Your task to perform on an android device: allow notifications from all sites in the chrome app Image 0: 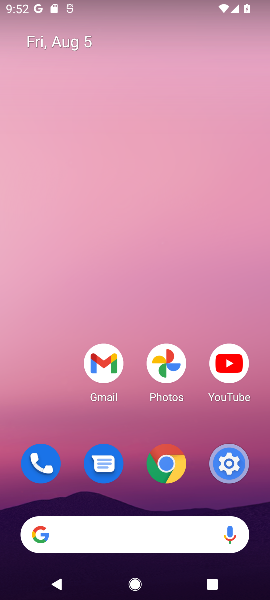
Step 0: drag from (190, 325) to (164, 47)
Your task to perform on an android device: allow notifications from all sites in the chrome app Image 1: 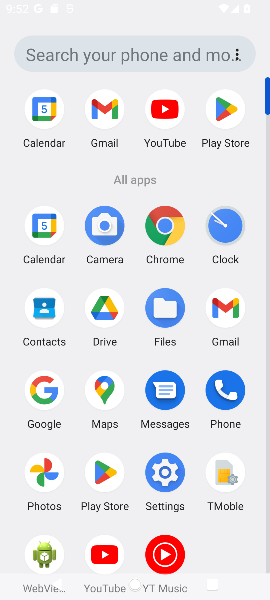
Step 1: drag from (181, 314) to (135, 59)
Your task to perform on an android device: allow notifications from all sites in the chrome app Image 2: 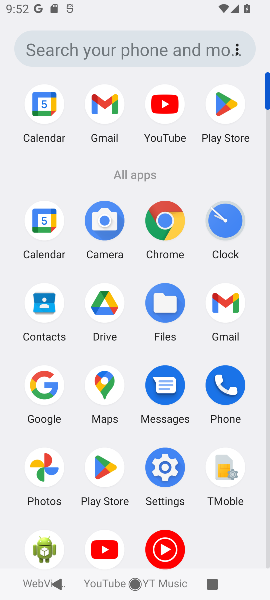
Step 2: click (169, 229)
Your task to perform on an android device: allow notifications from all sites in the chrome app Image 3: 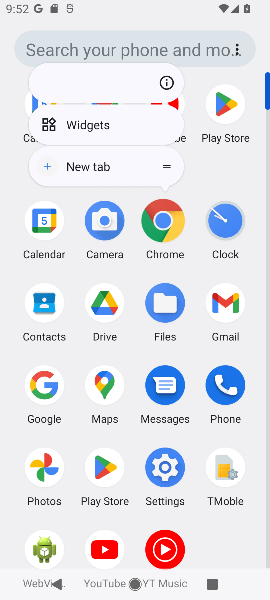
Step 3: click (167, 229)
Your task to perform on an android device: allow notifications from all sites in the chrome app Image 4: 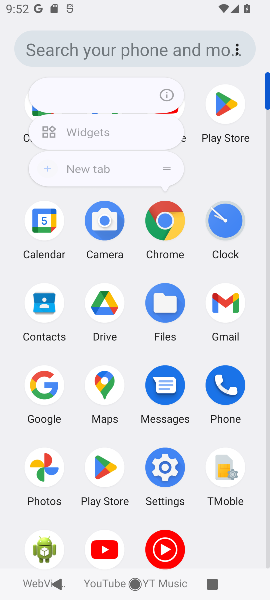
Step 4: click (161, 223)
Your task to perform on an android device: allow notifications from all sites in the chrome app Image 5: 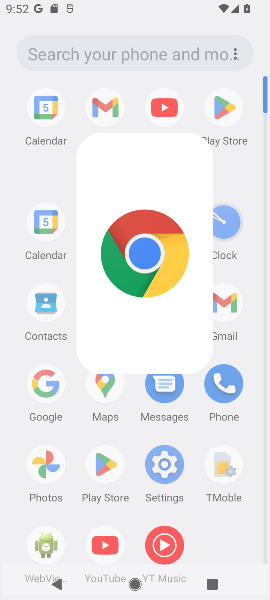
Step 5: click (161, 223)
Your task to perform on an android device: allow notifications from all sites in the chrome app Image 6: 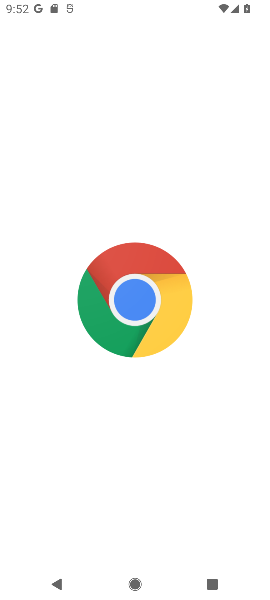
Step 6: click (161, 223)
Your task to perform on an android device: allow notifications from all sites in the chrome app Image 7: 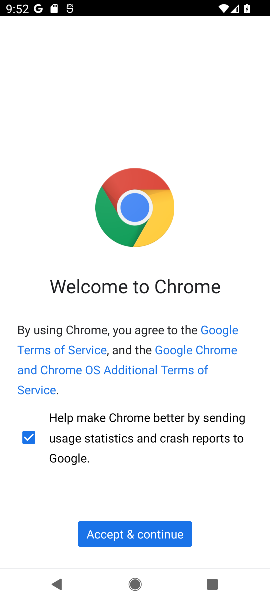
Step 7: click (156, 534)
Your task to perform on an android device: allow notifications from all sites in the chrome app Image 8: 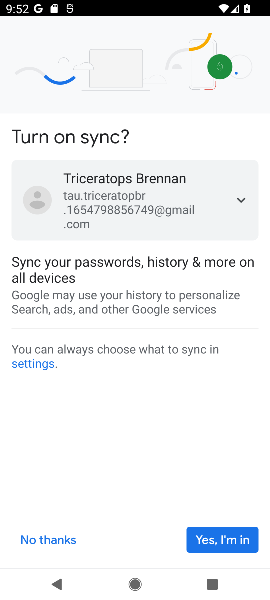
Step 8: click (149, 529)
Your task to perform on an android device: allow notifications from all sites in the chrome app Image 9: 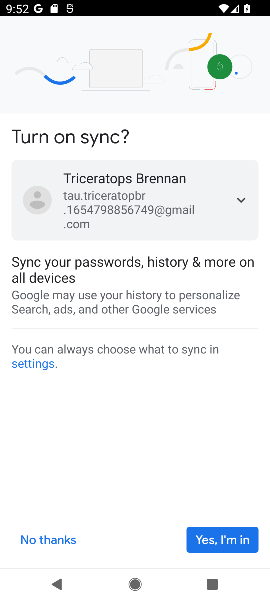
Step 9: click (34, 540)
Your task to perform on an android device: allow notifications from all sites in the chrome app Image 10: 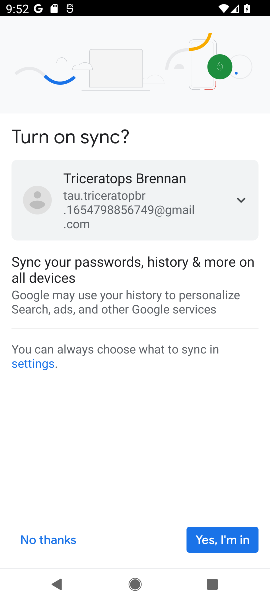
Step 10: click (34, 540)
Your task to perform on an android device: allow notifications from all sites in the chrome app Image 11: 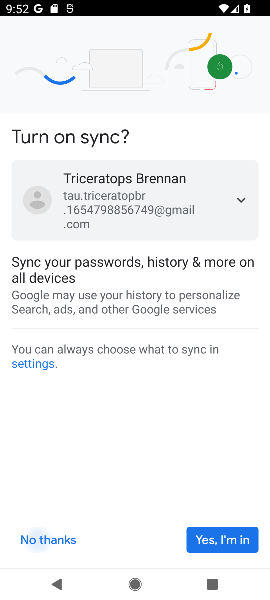
Step 11: click (34, 540)
Your task to perform on an android device: allow notifications from all sites in the chrome app Image 12: 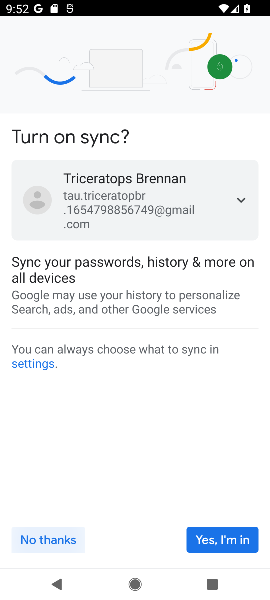
Step 12: click (34, 540)
Your task to perform on an android device: allow notifications from all sites in the chrome app Image 13: 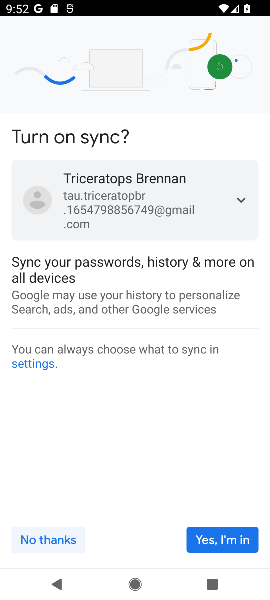
Step 13: click (34, 540)
Your task to perform on an android device: allow notifications from all sites in the chrome app Image 14: 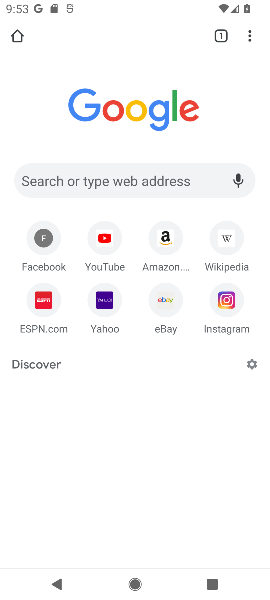
Step 14: click (52, 536)
Your task to perform on an android device: allow notifications from all sites in the chrome app Image 15: 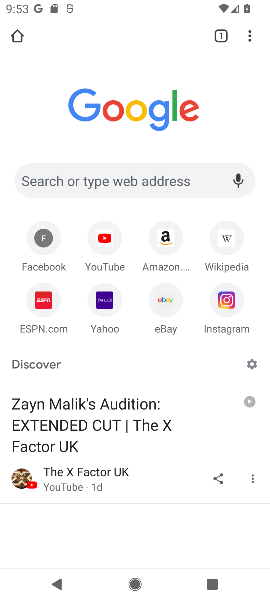
Step 15: click (52, 536)
Your task to perform on an android device: allow notifications from all sites in the chrome app Image 16: 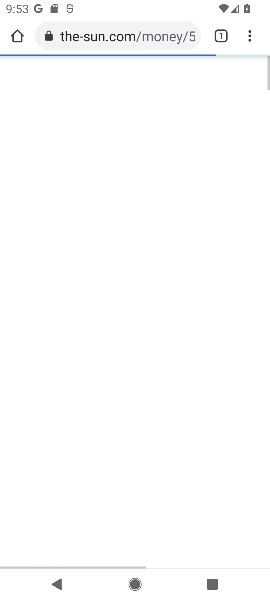
Step 16: task complete